Your task to perform on an android device: turn off smart reply in the gmail app Image 0: 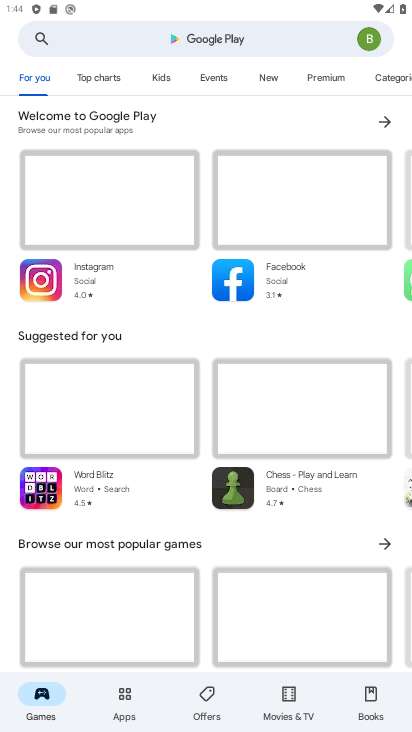
Step 0: press home button
Your task to perform on an android device: turn off smart reply in the gmail app Image 1: 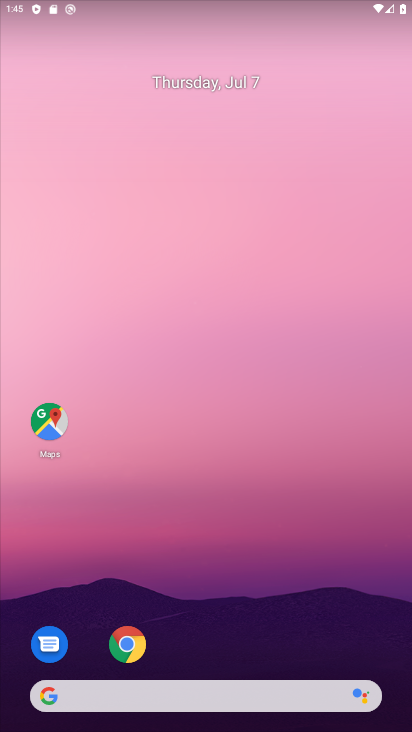
Step 1: drag from (234, 619) to (234, 9)
Your task to perform on an android device: turn off smart reply in the gmail app Image 2: 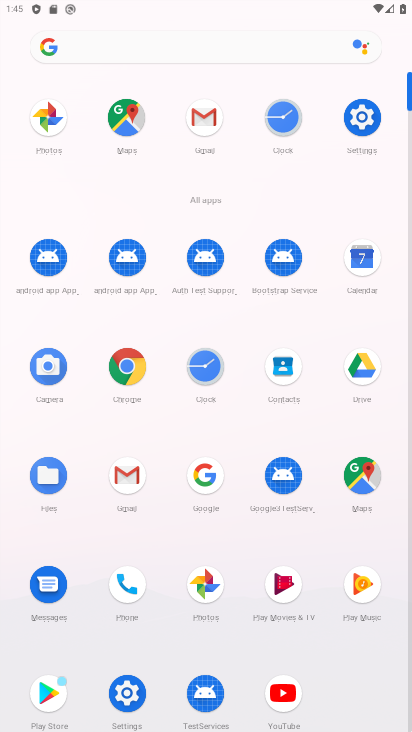
Step 2: click (203, 142)
Your task to perform on an android device: turn off smart reply in the gmail app Image 3: 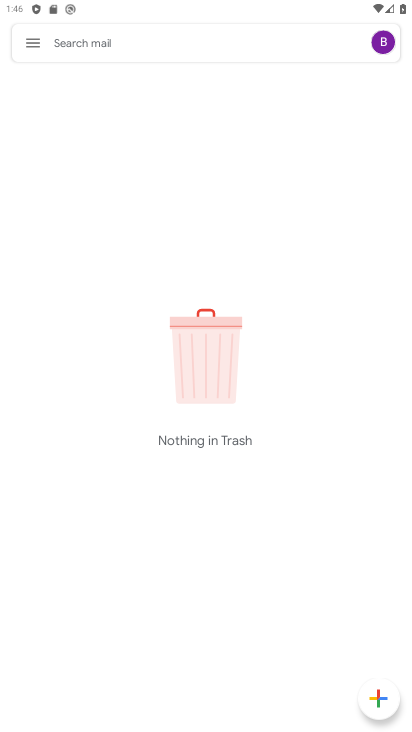
Step 3: click (33, 42)
Your task to perform on an android device: turn off smart reply in the gmail app Image 4: 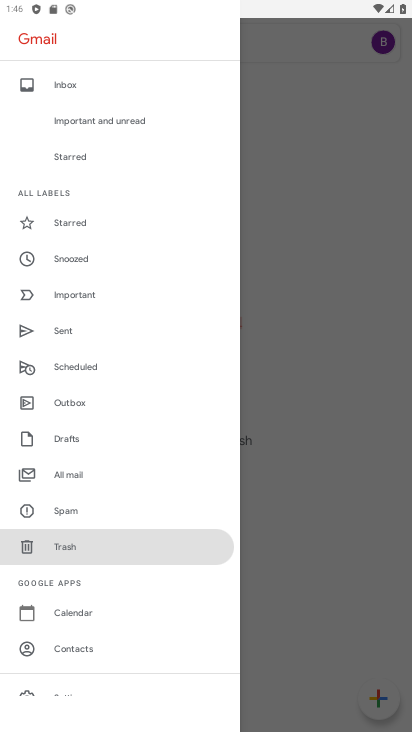
Step 4: drag from (93, 617) to (148, 298)
Your task to perform on an android device: turn off smart reply in the gmail app Image 5: 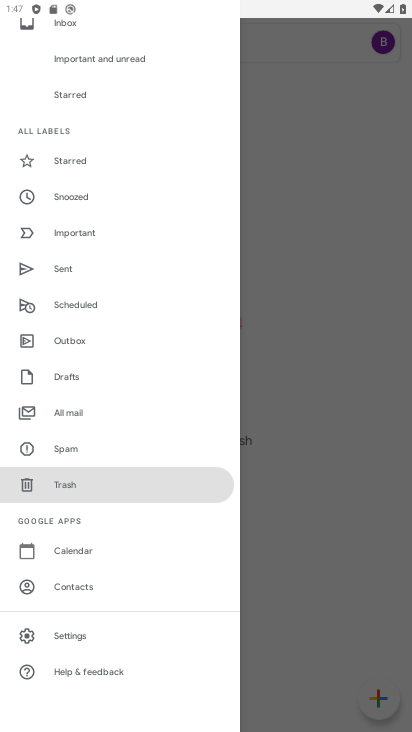
Step 5: click (74, 632)
Your task to perform on an android device: turn off smart reply in the gmail app Image 6: 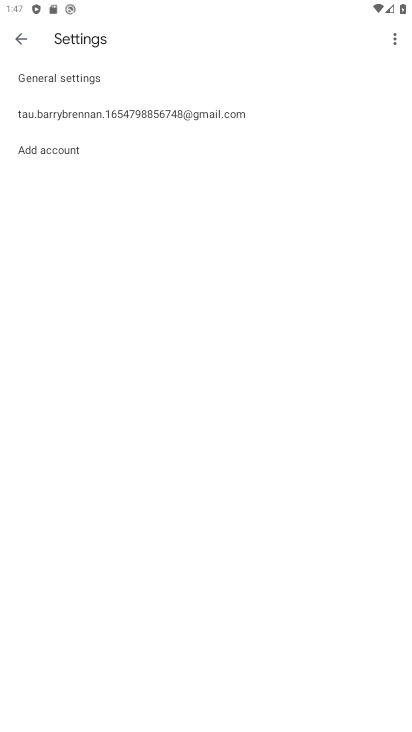
Step 6: click (95, 113)
Your task to perform on an android device: turn off smart reply in the gmail app Image 7: 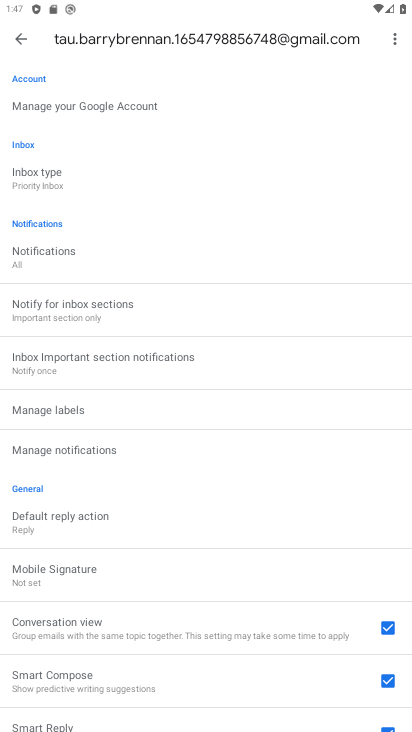
Step 7: drag from (120, 610) to (114, 337)
Your task to perform on an android device: turn off smart reply in the gmail app Image 8: 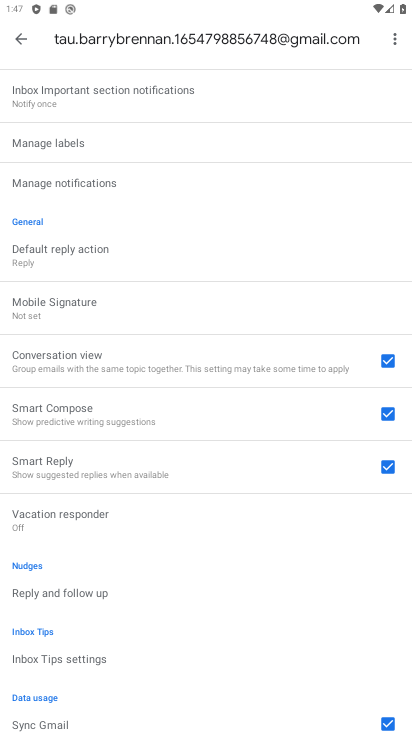
Step 8: drag from (127, 643) to (102, 339)
Your task to perform on an android device: turn off smart reply in the gmail app Image 9: 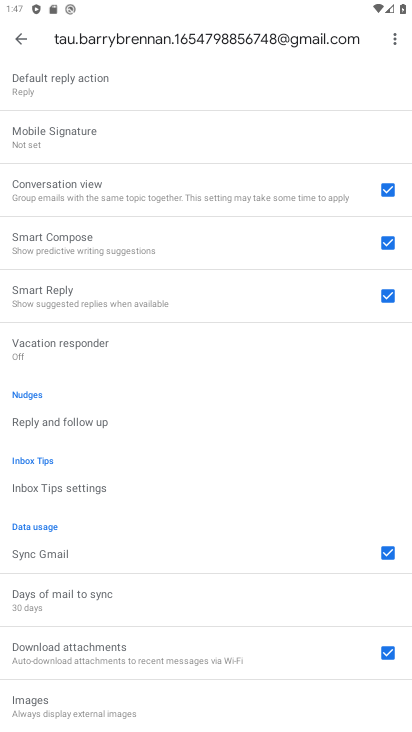
Step 9: drag from (129, 675) to (126, 421)
Your task to perform on an android device: turn off smart reply in the gmail app Image 10: 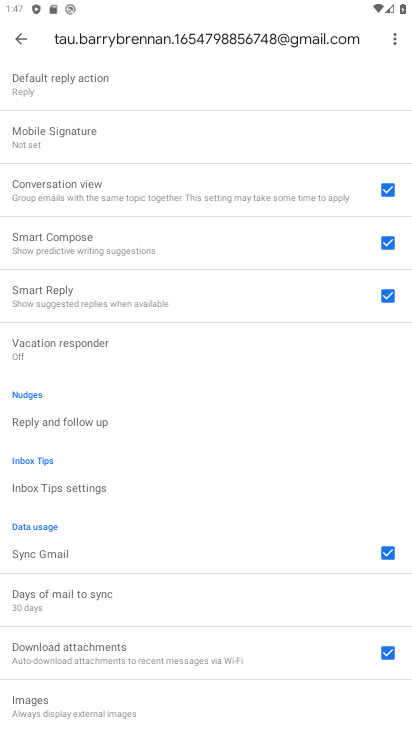
Step 10: drag from (147, 545) to (108, 278)
Your task to perform on an android device: turn off smart reply in the gmail app Image 11: 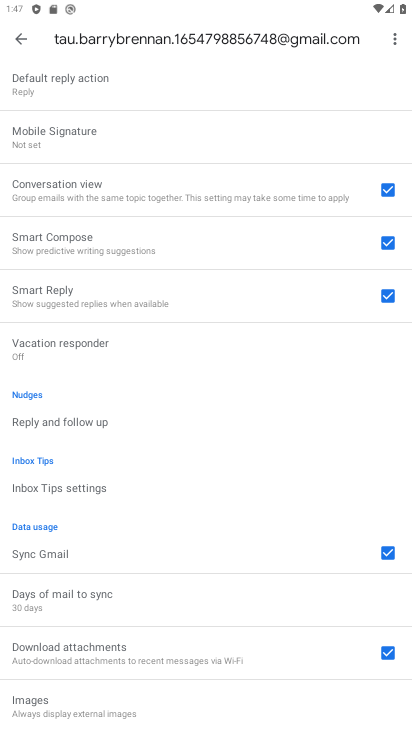
Step 11: drag from (126, 687) to (142, 377)
Your task to perform on an android device: turn off smart reply in the gmail app Image 12: 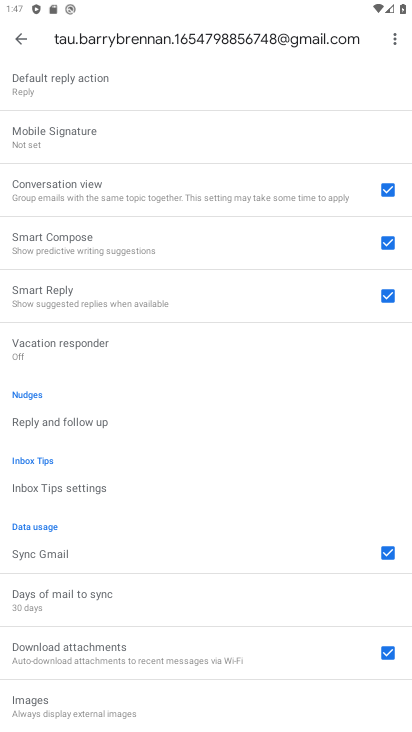
Step 12: click (395, 297)
Your task to perform on an android device: turn off smart reply in the gmail app Image 13: 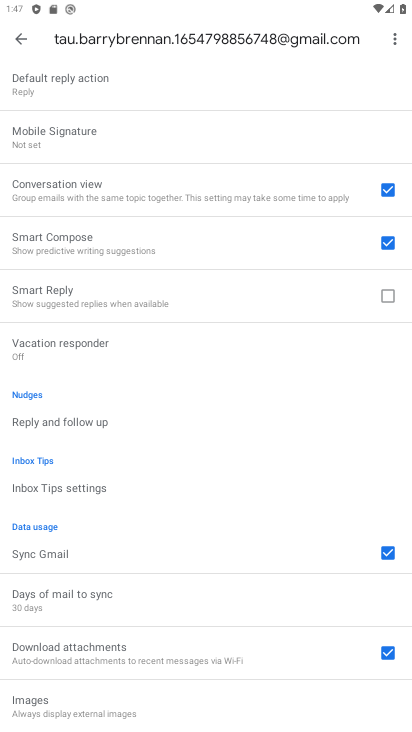
Step 13: task complete